Your task to perform on an android device: turn notification dots on Image 0: 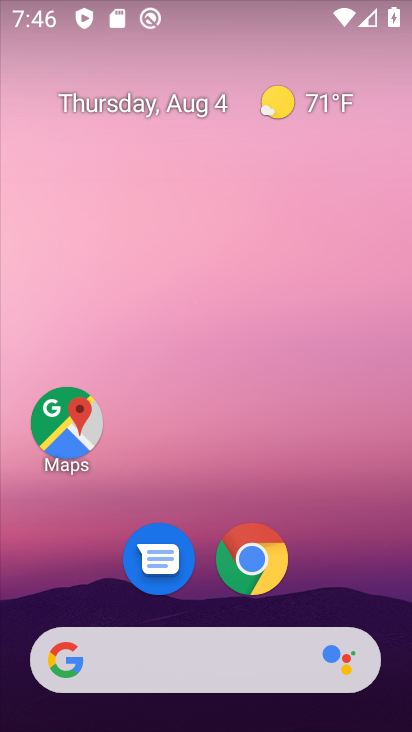
Step 0: drag from (232, 628) to (239, 3)
Your task to perform on an android device: turn notification dots on Image 1: 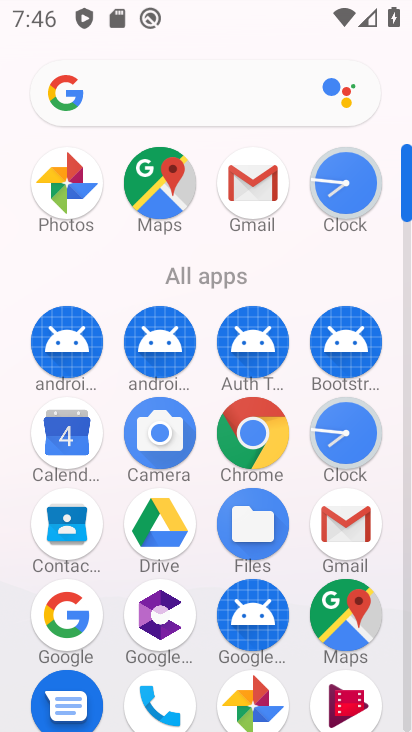
Step 1: drag from (104, 594) to (200, 3)
Your task to perform on an android device: turn notification dots on Image 2: 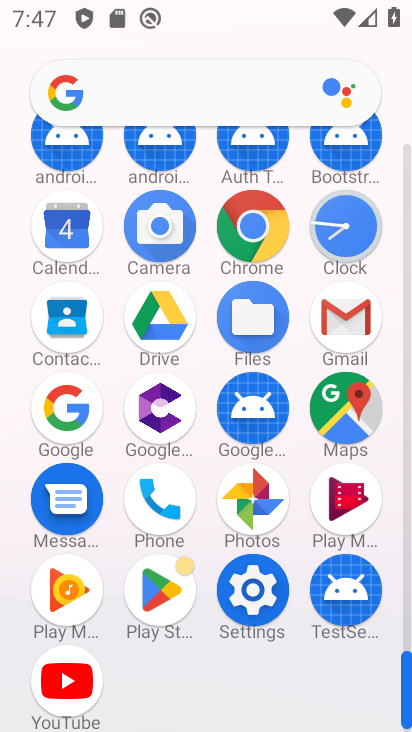
Step 2: click (256, 582)
Your task to perform on an android device: turn notification dots on Image 3: 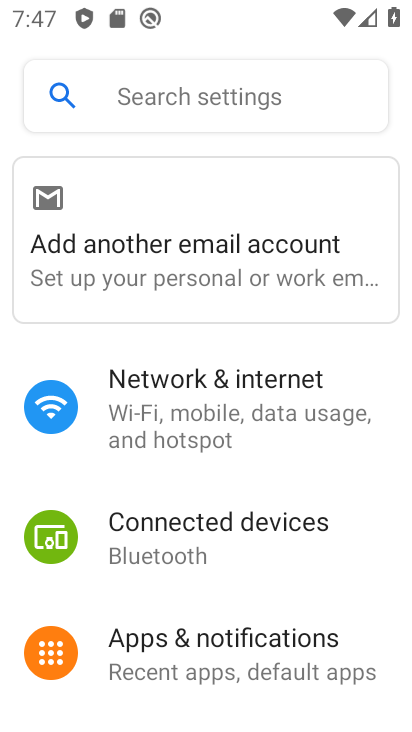
Step 3: drag from (228, 555) to (195, 299)
Your task to perform on an android device: turn notification dots on Image 4: 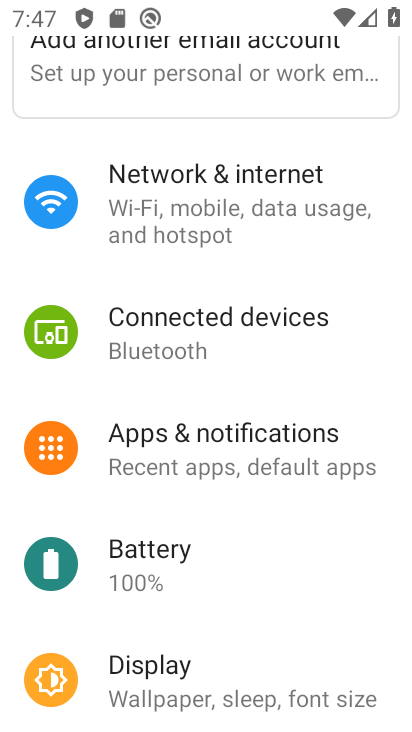
Step 4: click (220, 435)
Your task to perform on an android device: turn notification dots on Image 5: 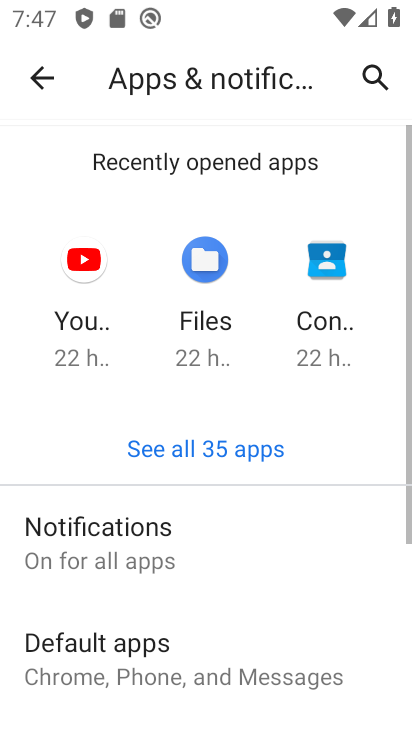
Step 5: drag from (174, 518) to (151, 91)
Your task to perform on an android device: turn notification dots on Image 6: 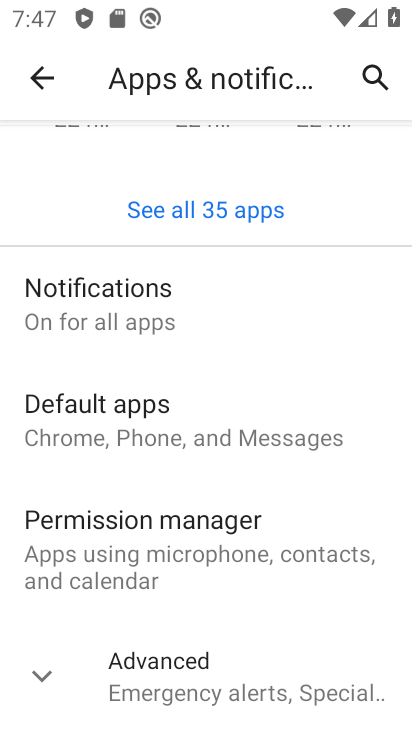
Step 6: click (121, 321)
Your task to perform on an android device: turn notification dots on Image 7: 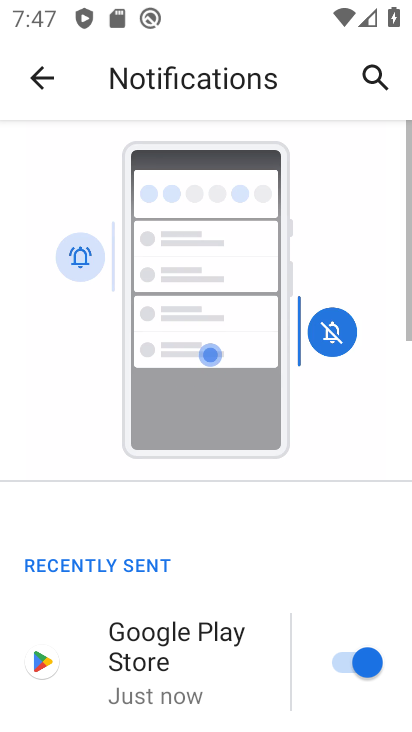
Step 7: drag from (180, 583) to (154, 34)
Your task to perform on an android device: turn notification dots on Image 8: 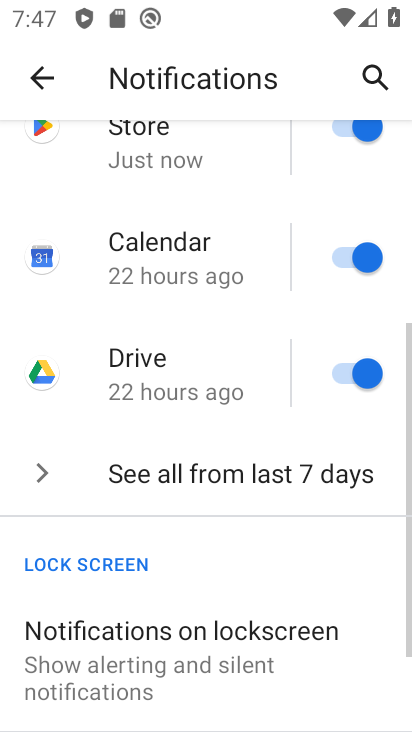
Step 8: drag from (201, 530) to (160, 64)
Your task to perform on an android device: turn notification dots on Image 9: 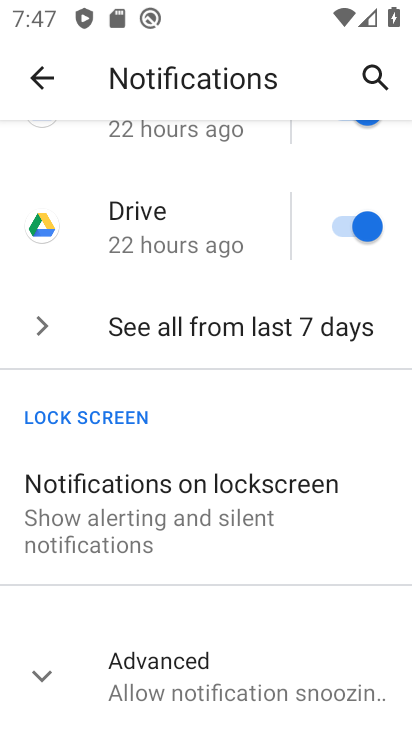
Step 9: click (185, 668)
Your task to perform on an android device: turn notification dots on Image 10: 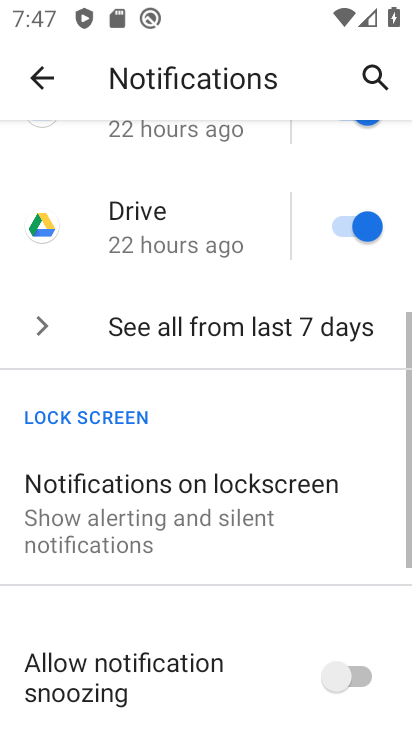
Step 10: task complete